Your task to perform on an android device: change notifications settings Image 0: 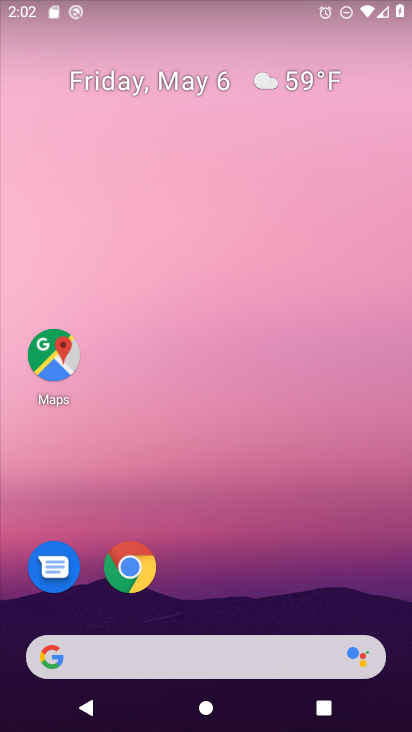
Step 0: drag from (288, 563) to (257, 107)
Your task to perform on an android device: change notifications settings Image 1: 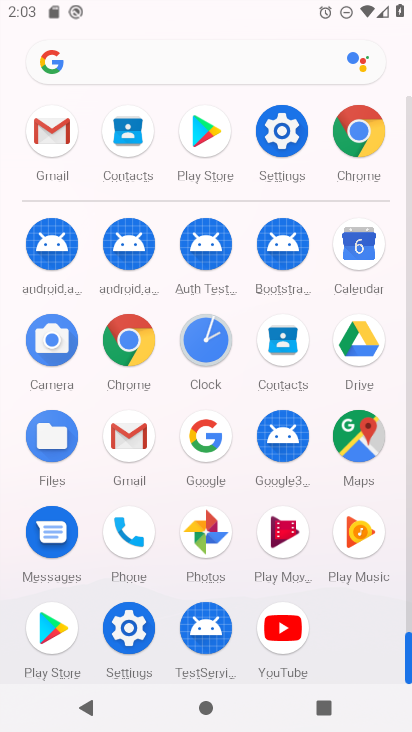
Step 1: drag from (256, 110) to (266, 222)
Your task to perform on an android device: change notifications settings Image 2: 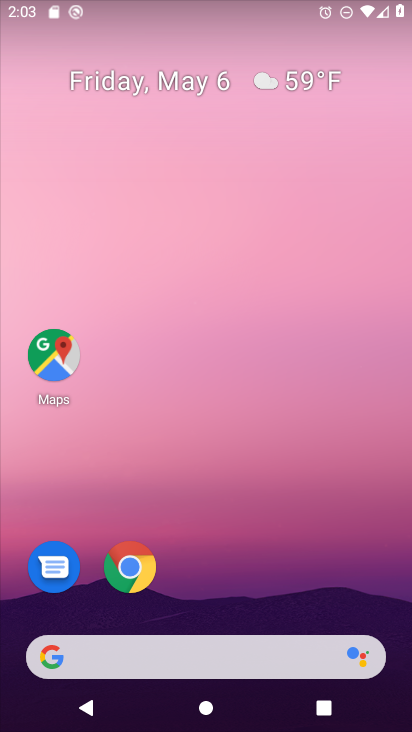
Step 2: drag from (255, 583) to (249, 171)
Your task to perform on an android device: change notifications settings Image 3: 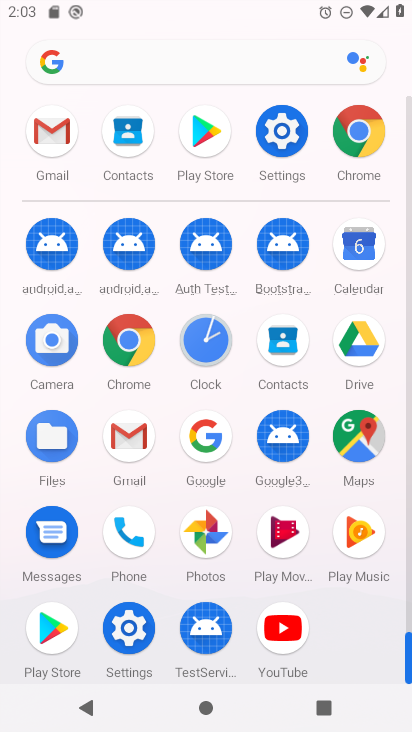
Step 3: click (136, 626)
Your task to perform on an android device: change notifications settings Image 4: 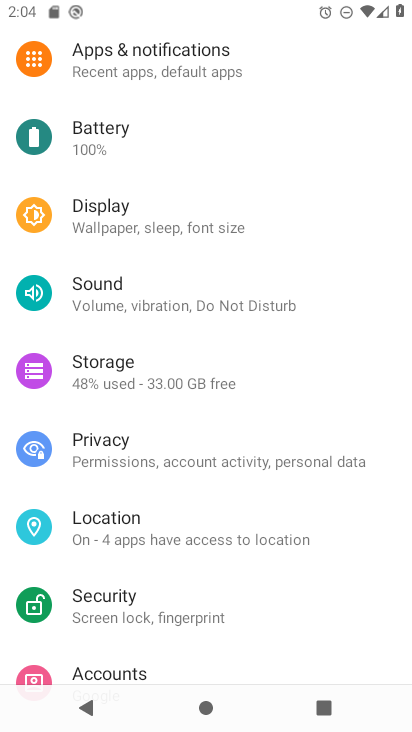
Step 4: drag from (130, 119) to (177, 427)
Your task to perform on an android device: change notifications settings Image 5: 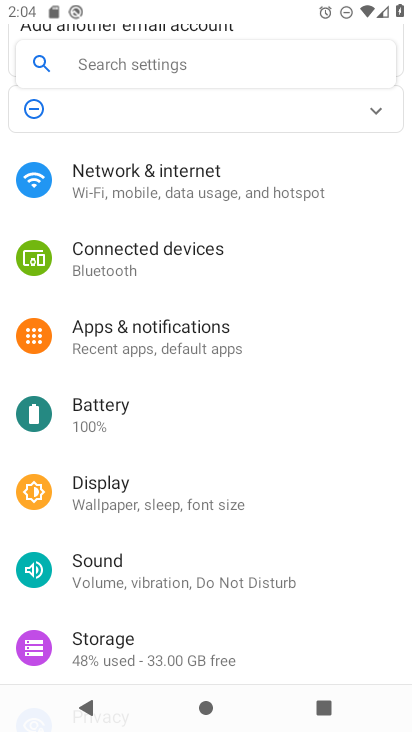
Step 5: click (162, 344)
Your task to perform on an android device: change notifications settings Image 6: 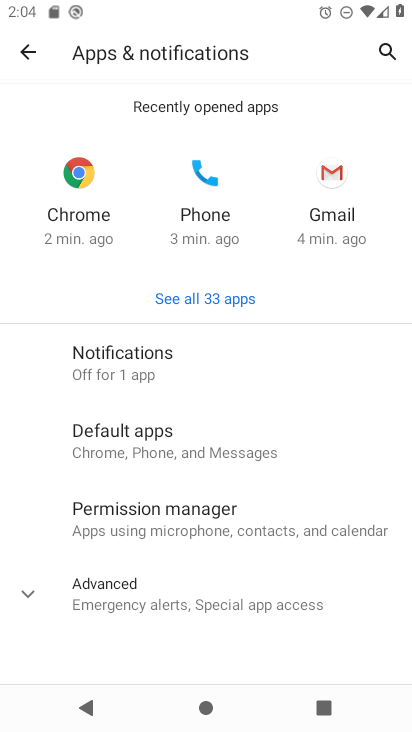
Step 6: click (185, 360)
Your task to perform on an android device: change notifications settings Image 7: 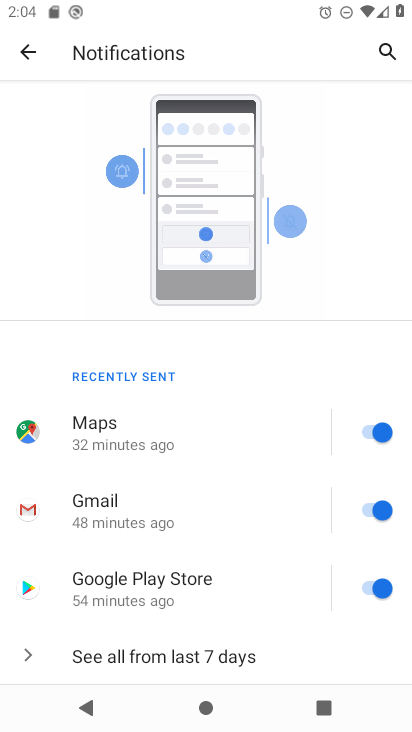
Step 7: click (385, 424)
Your task to perform on an android device: change notifications settings Image 8: 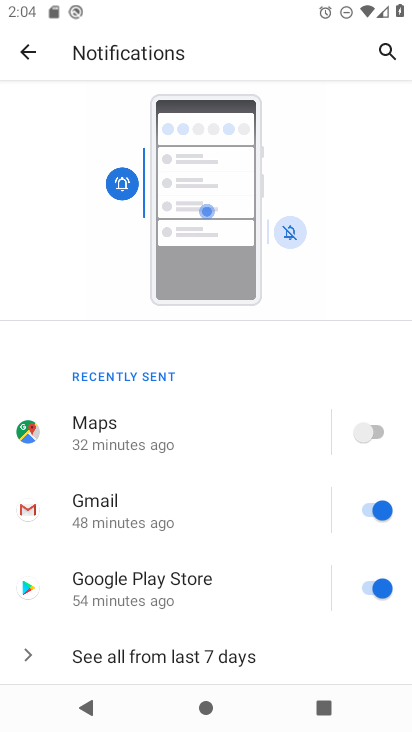
Step 8: task complete